Your task to perform on an android device: Check the news Image 0: 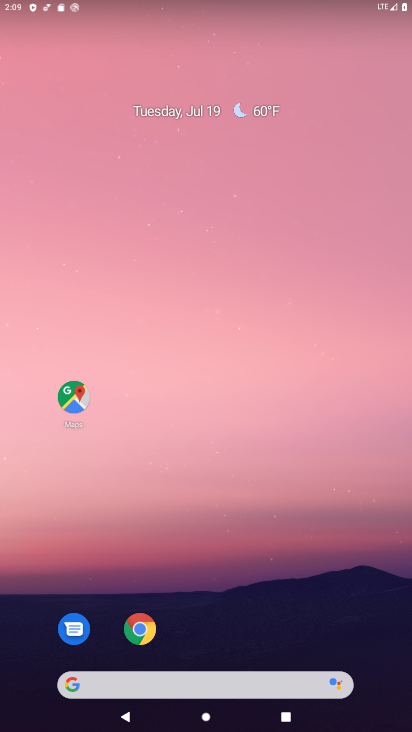
Step 0: drag from (192, 607) to (215, 125)
Your task to perform on an android device: Check the news Image 1: 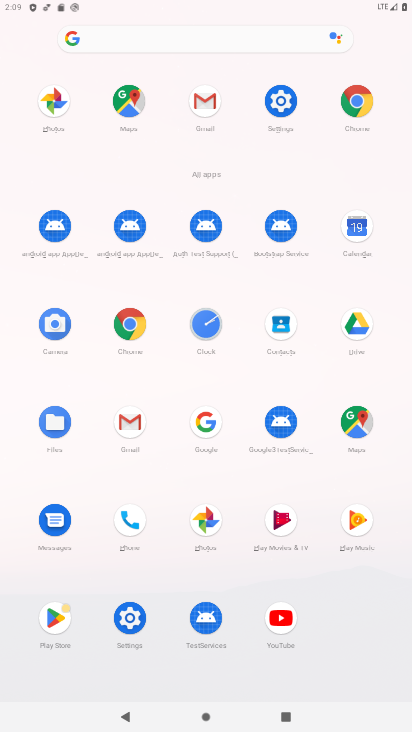
Step 1: click (200, 415)
Your task to perform on an android device: Check the news Image 2: 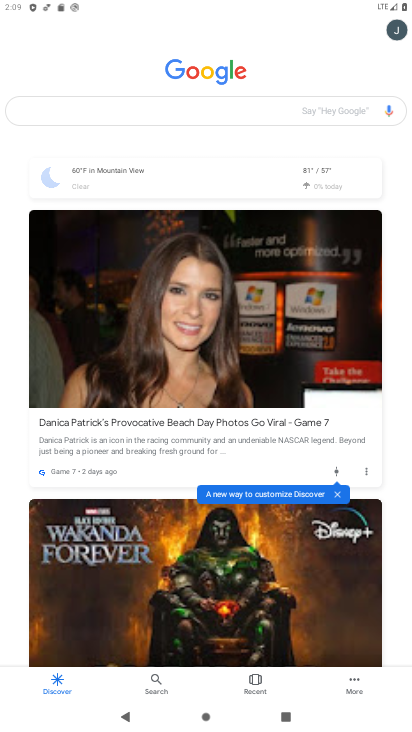
Step 2: click (168, 107)
Your task to perform on an android device: Check the news Image 3: 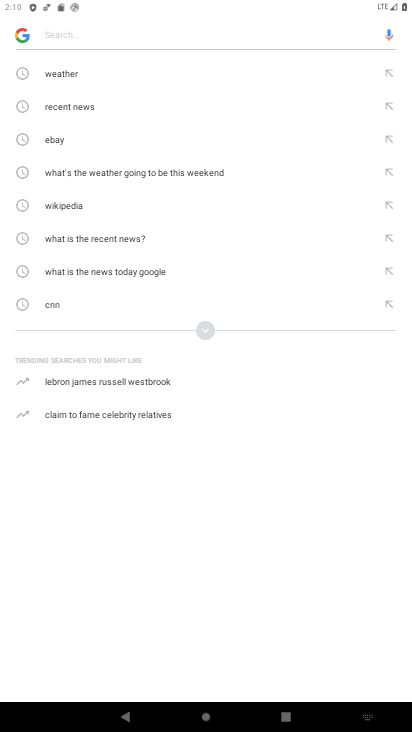
Step 3: type "news"
Your task to perform on an android device: Check the news Image 4: 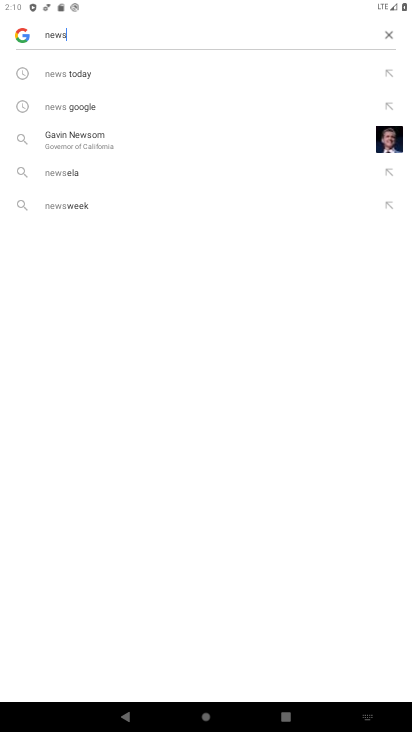
Step 4: click (88, 66)
Your task to perform on an android device: Check the news Image 5: 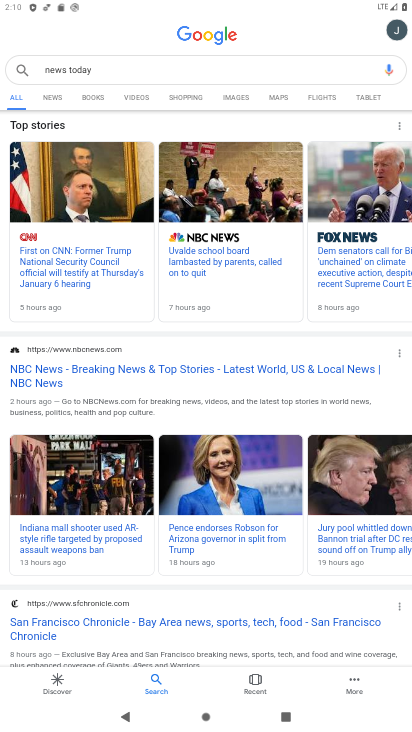
Step 5: click (54, 99)
Your task to perform on an android device: Check the news Image 6: 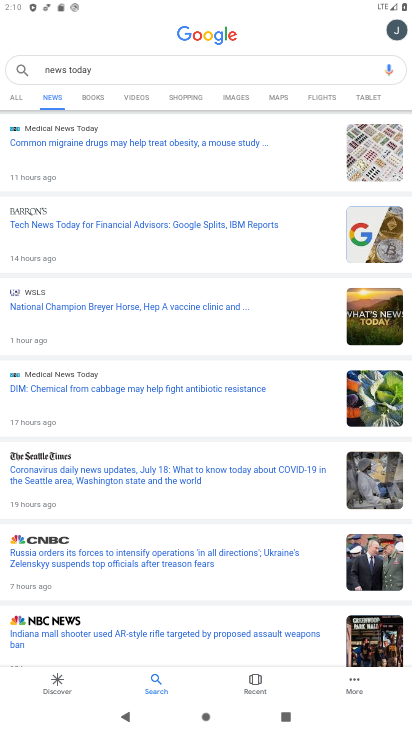
Step 6: task complete